Your task to perform on an android device: turn off priority inbox in the gmail app Image 0: 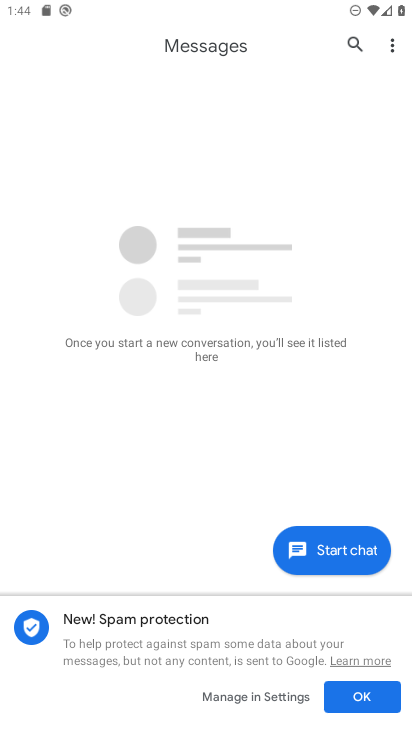
Step 0: press home button
Your task to perform on an android device: turn off priority inbox in the gmail app Image 1: 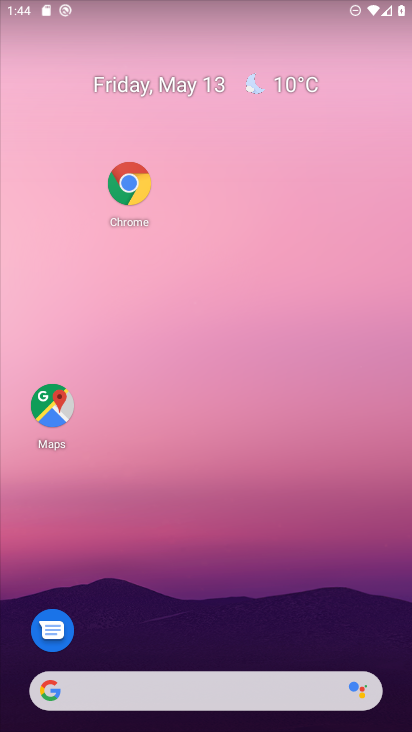
Step 1: drag from (221, 666) to (237, 310)
Your task to perform on an android device: turn off priority inbox in the gmail app Image 2: 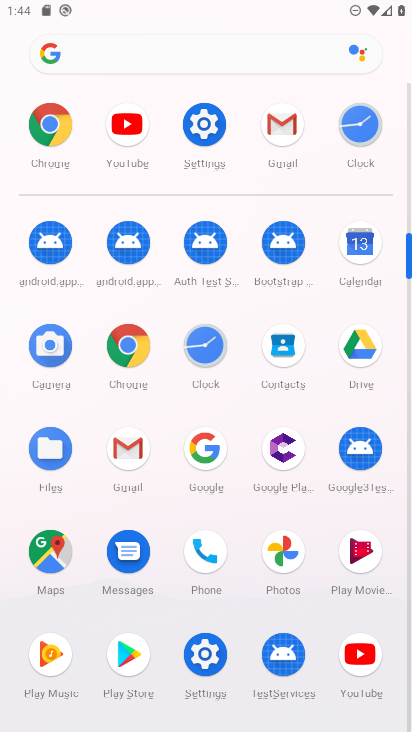
Step 2: click (269, 139)
Your task to perform on an android device: turn off priority inbox in the gmail app Image 3: 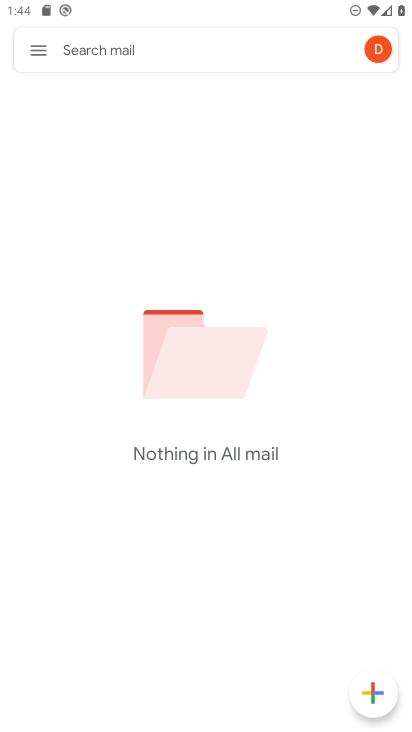
Step 3: click (34, 62)
Your task to perform on an android device: turn off priority inbox in the gmail app Image 4: 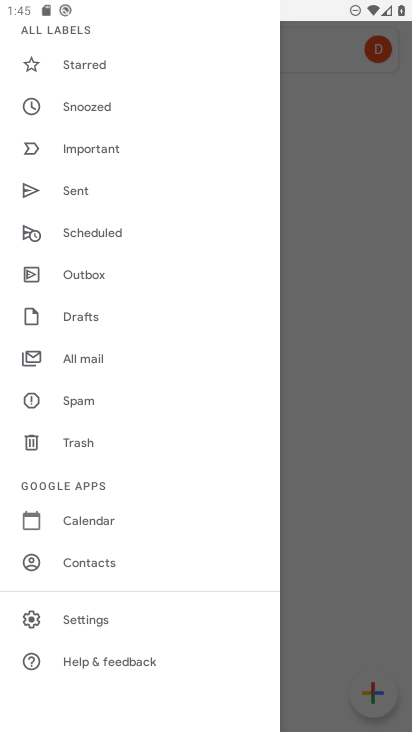
Step 4: click (94, 621)
Your task to perform on an android device: turn off priority inbox in the gmail app Image 5: 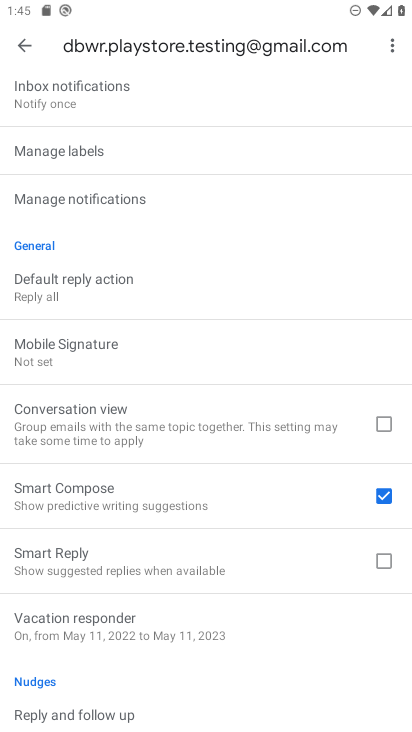
Step 5: drag from (150, 546) to (34, 310)
Your task to perform on an android device: turn off priority inbox in the gmail app Image 6: 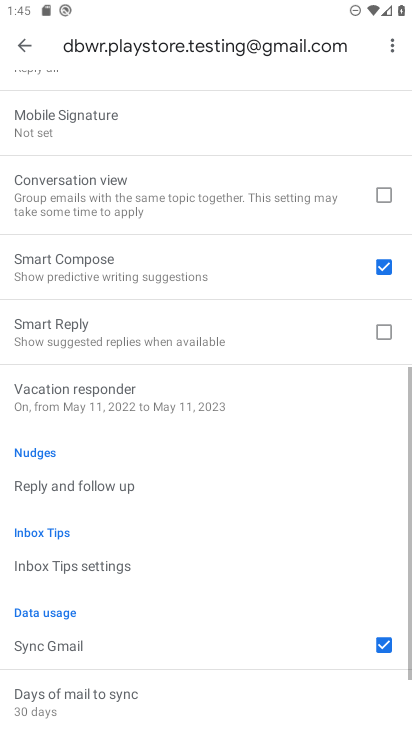
Step 6: drag from (110, 195) to (81, 678)
Your task to perform on an android device: turn off priority inbox in the gmail app Image 7: 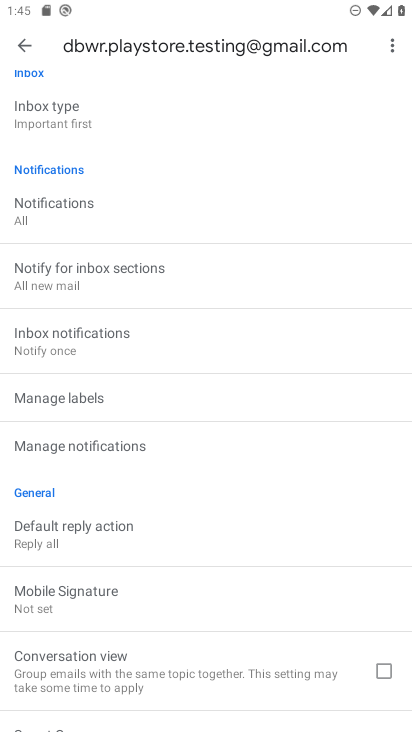
Step 7: click (65, 130)
Your task to perform on an android device: turn off priority inbox in the gmail app Image 8: 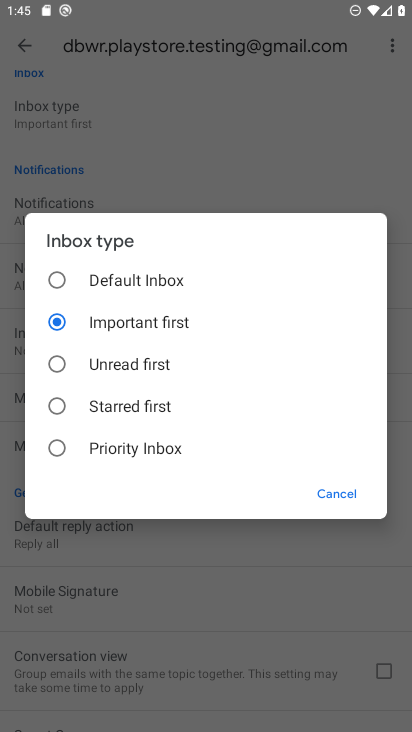
Step 8: click (102, 324)
Your task to perform on an android device: turn off priority inbox in the gmail app Image 9: 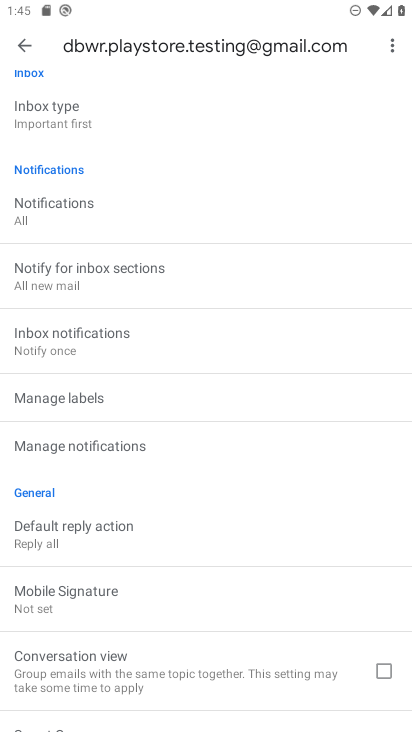
Step 9: task complete